Your task to perform on an android device: open a bookmark in the chrome app Image 0: 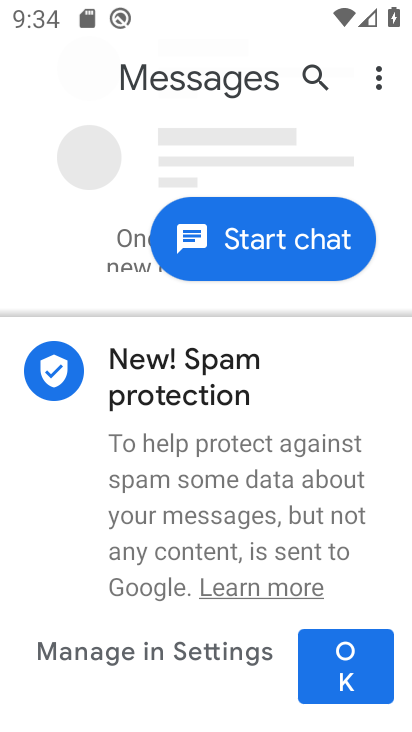
Step 0: drag from (373, 562) to (399, 312)
Your task to perform on an android device: open a bookmark in the chrome app Image 1: 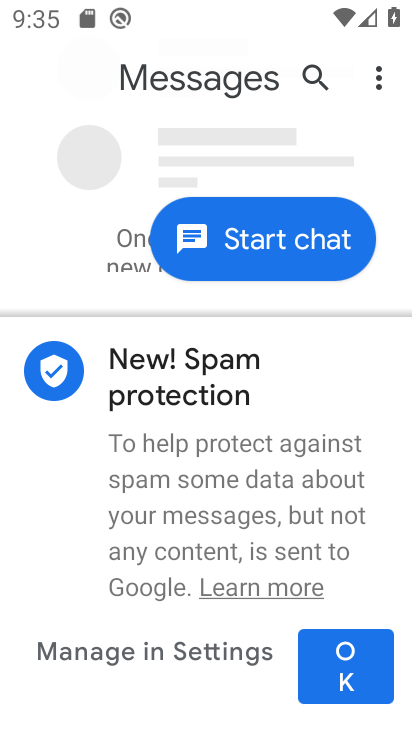
Step 1: press home button
Your task to perform on an android device: open a bookmark in the chrome app Image 2: 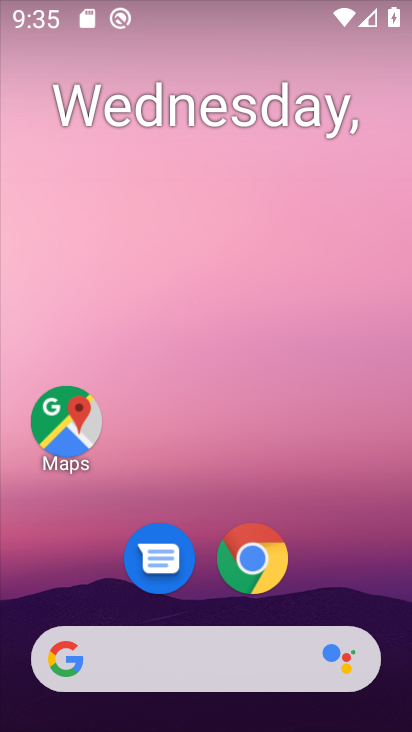
Step 2: drag from (367, 545) to (382, 174)
Your task to perform on an android device: open a bookmark in the chrome app Image 3: 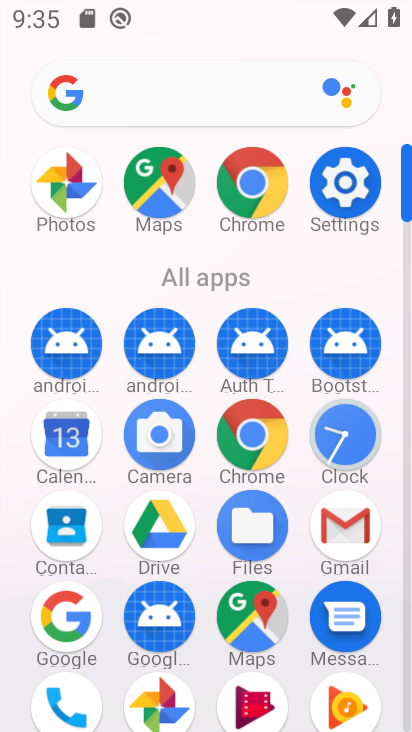
Step 3: click (258, 433)
Your task to perform on an android device: open a bookmark in the chrome app Image 4: 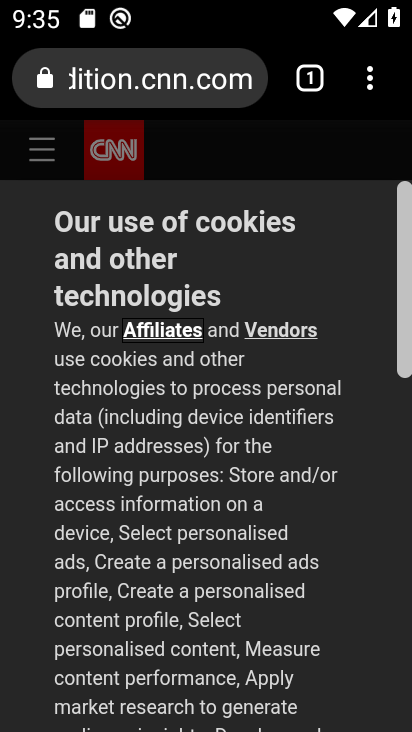
Step 4: click (369, 87)
Your task to perform on an android device: open a bookmark in the chrome app Image 5: 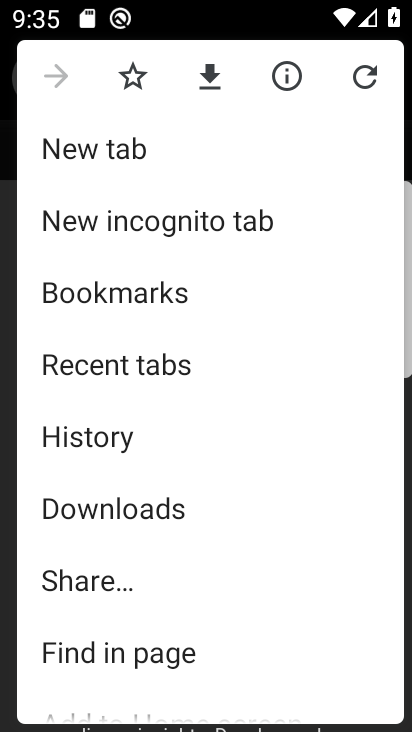
Step 5: click (220, 297)
Your task to perform on an android device: open a bookmark in the chrome app Image 6: 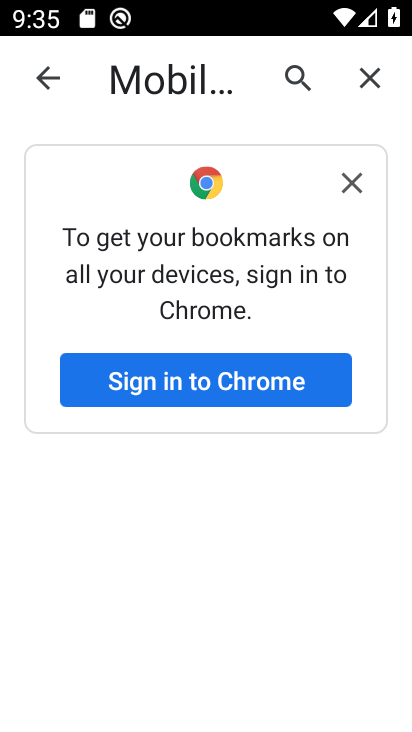
Step 6: click (350, 189)
Your task to perform on an android device: open a bookmark in the chrome app Image 7: 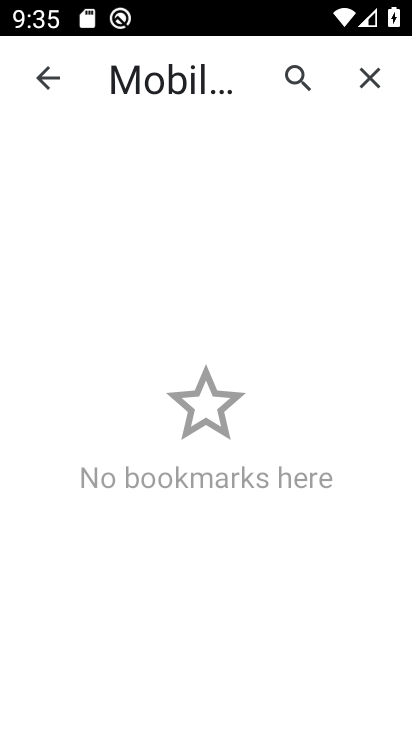
Step 7: task complete